Your task to perform on an android device: What is the speed of sound? Image 0: 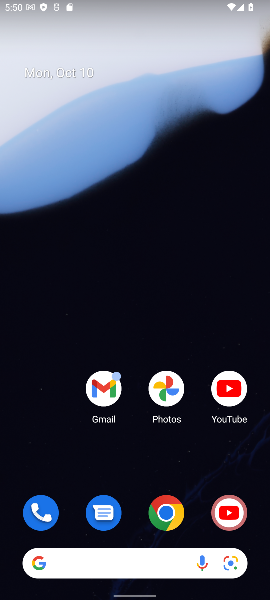
Step 0: click (66, 575)
Your task to perform on an android device: What is the speed of sound? Image 1: 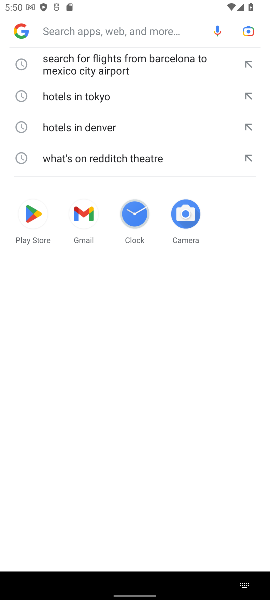
Step 1: type " the speed of sound?"
Your task to perform on an android device: What is the speed of sound? Image 2: 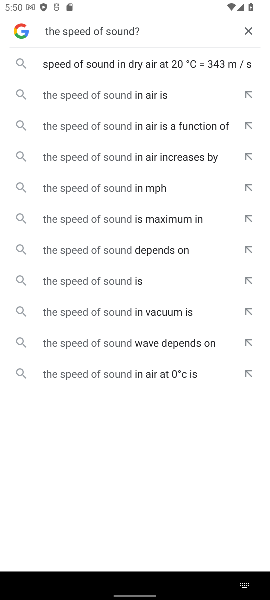
Step 2: click (116, 69)
Your task to perform on an android device: What is the speed of sound? Image 3: 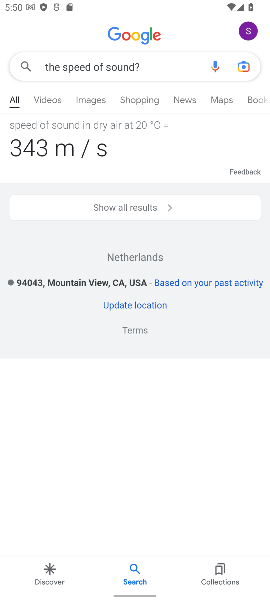
Step 3: task complete